Your task to perform on an android device: find which apps use the phone's location Image 0: 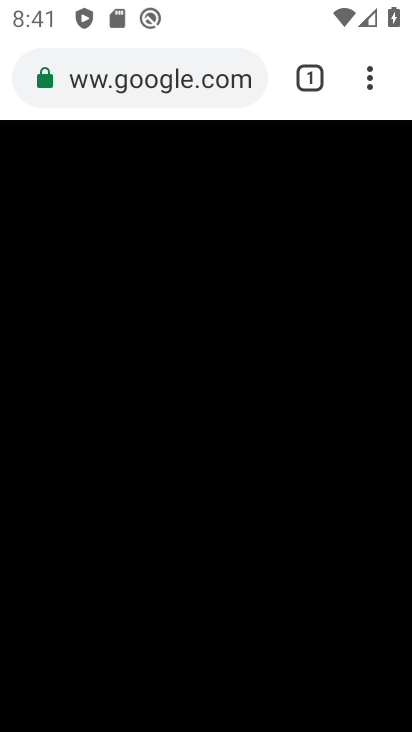
Step 0: press home button
Your task to perform on an android device: find which apps use the phone's location Image 1: 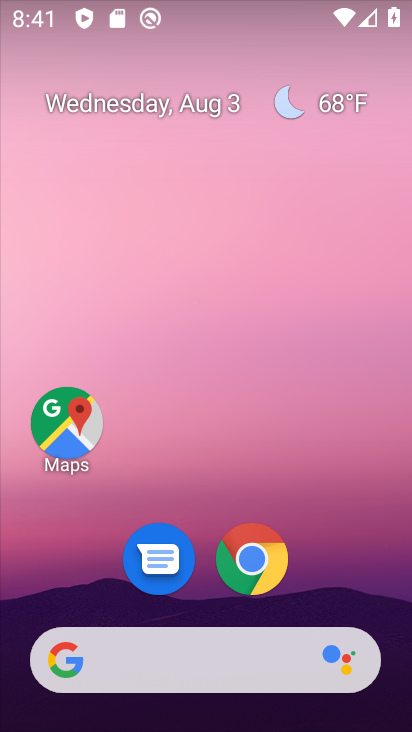
Step 1: drag from (354, 596) to (209, 108)
Your task to perform on an android device: find which apps use the phone's location Image 2: 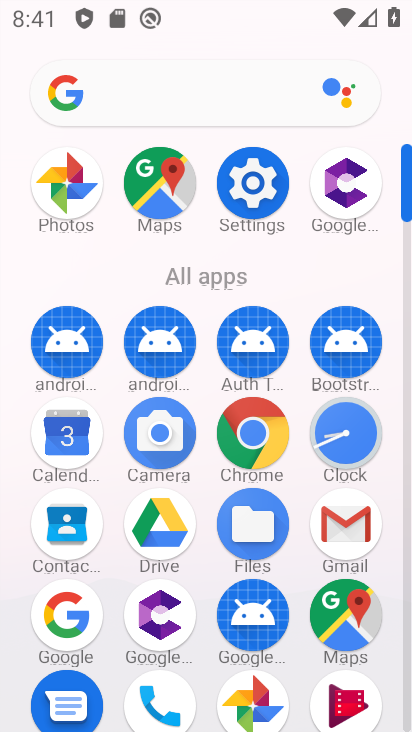
Step 2: click (272, 163)
Your task to perform on an android device: find which apps use the phone's location Image 3: 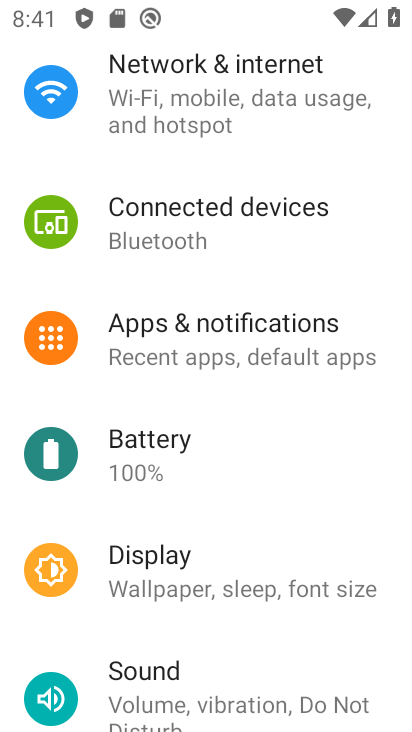
Step 3: drag from (286, 646) to (222, 197)
Your task to perform on an android device: find which apps use the phone's location Image 4: 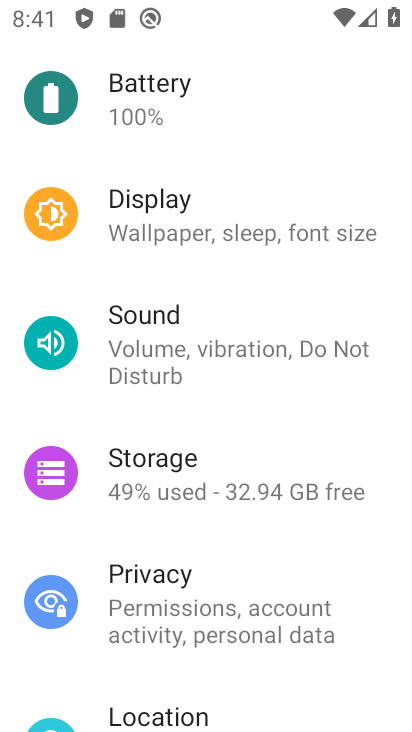
Step 4: click (262, 704)
Your task to perform on an android device: find which apps use the phone's location Image 5: 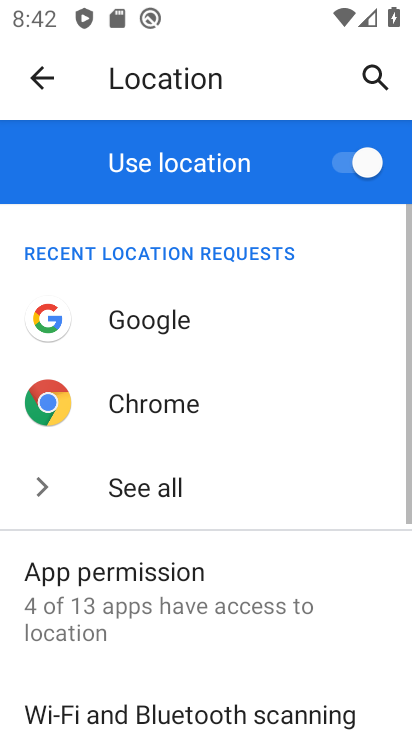
Step 5: drag from (255, 642) to (192, 401)
Your task to perform on an android device: find which apps use the phone's location Image 6: 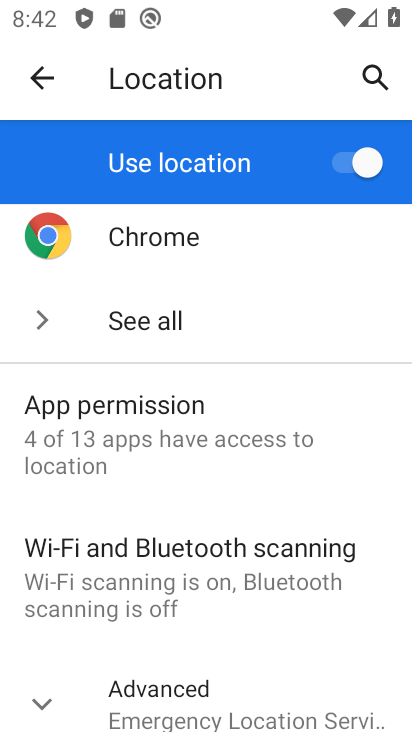
Step 6: click (241, 425)
Your task to perform on an android device: find which apps use the phone's location Image 7: 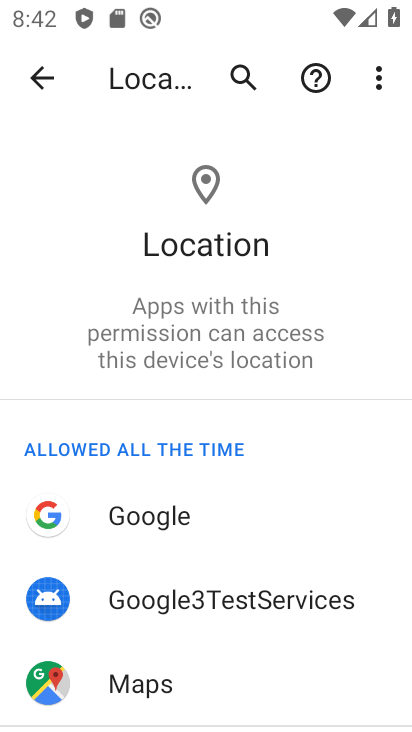
Step 7: task complete